Your task to perform on an android device: Do I have any events tomorrow? Image 0: 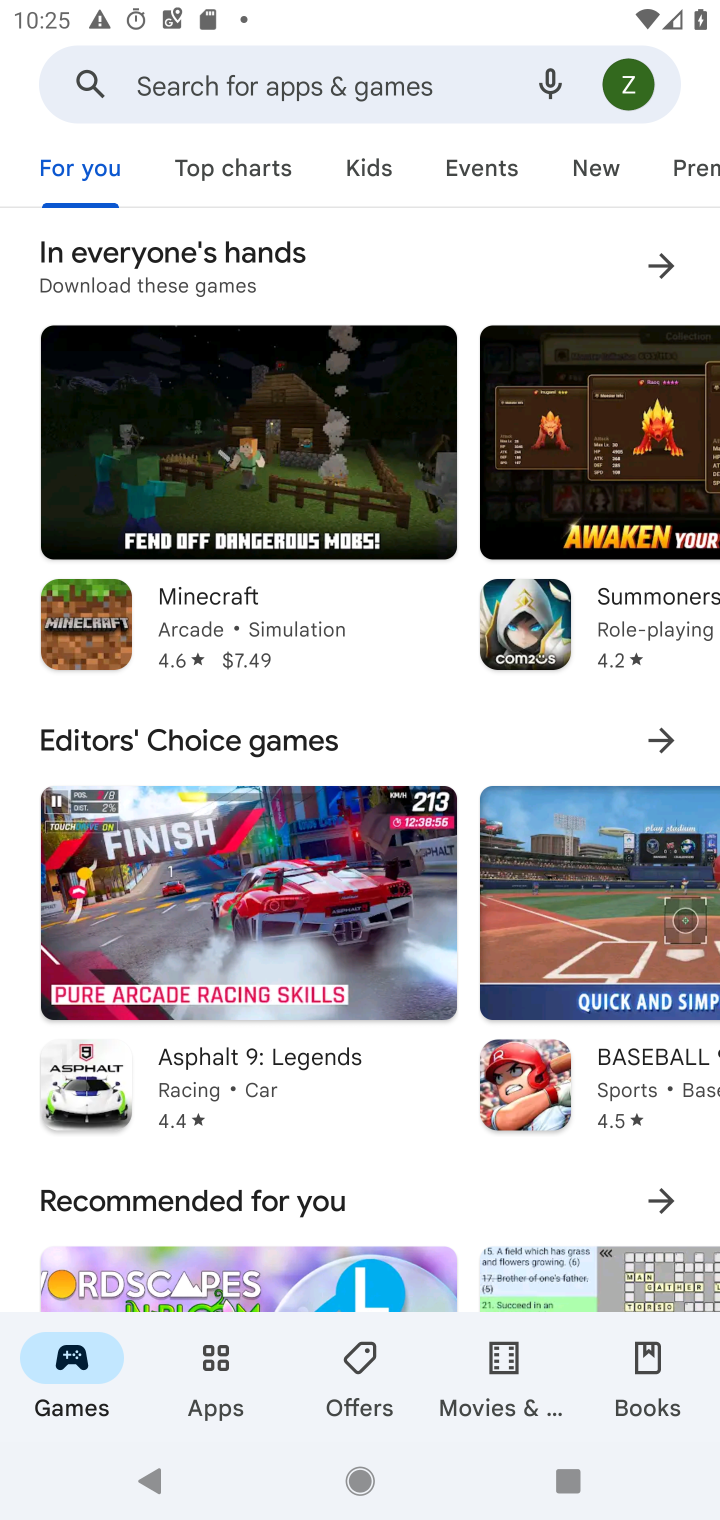
Step 0: press home button
Your task to perform on an android device: Do I have any events tomorrow? Image 1: 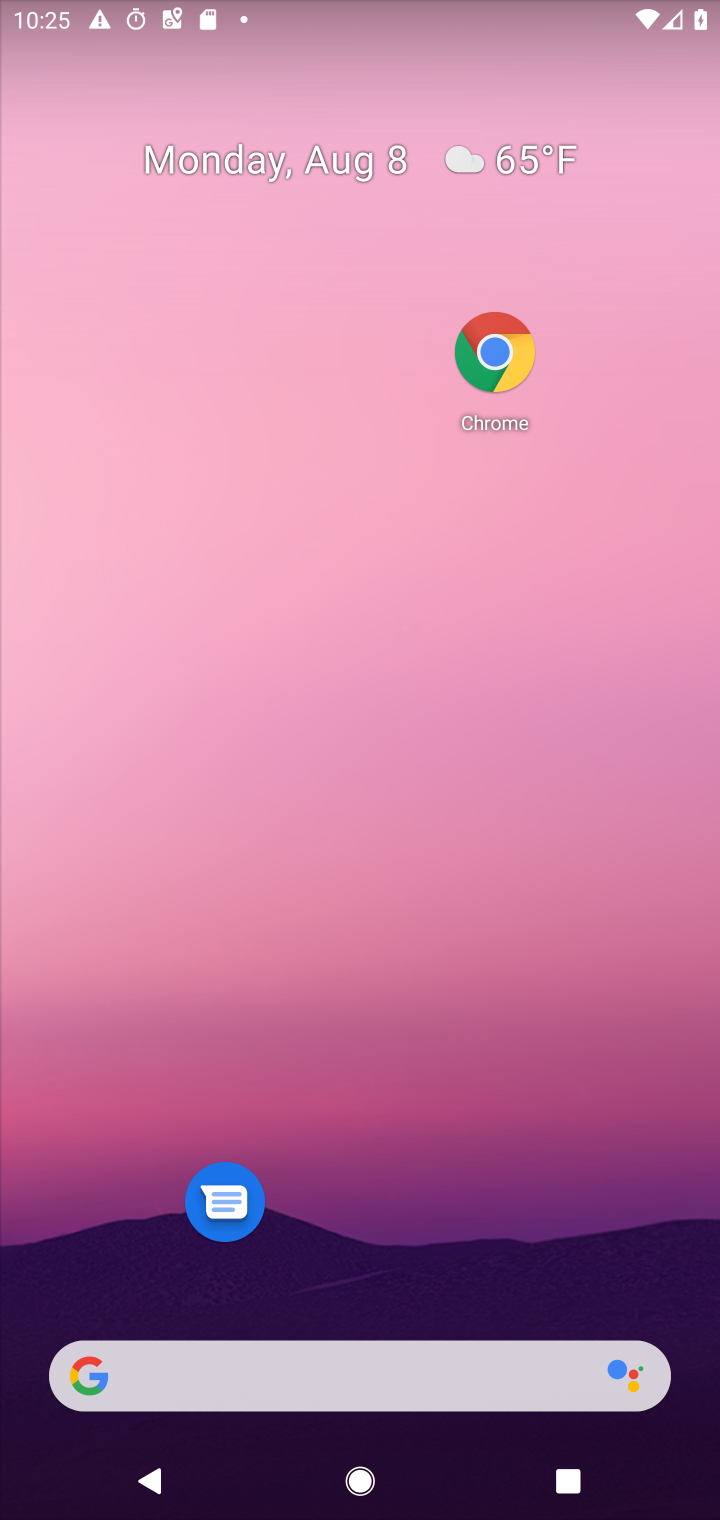
Step 1: drag from (584, 910) to (676, 289)
Your task to perform on an android device: Do I have any events tomorrow? Image 2: 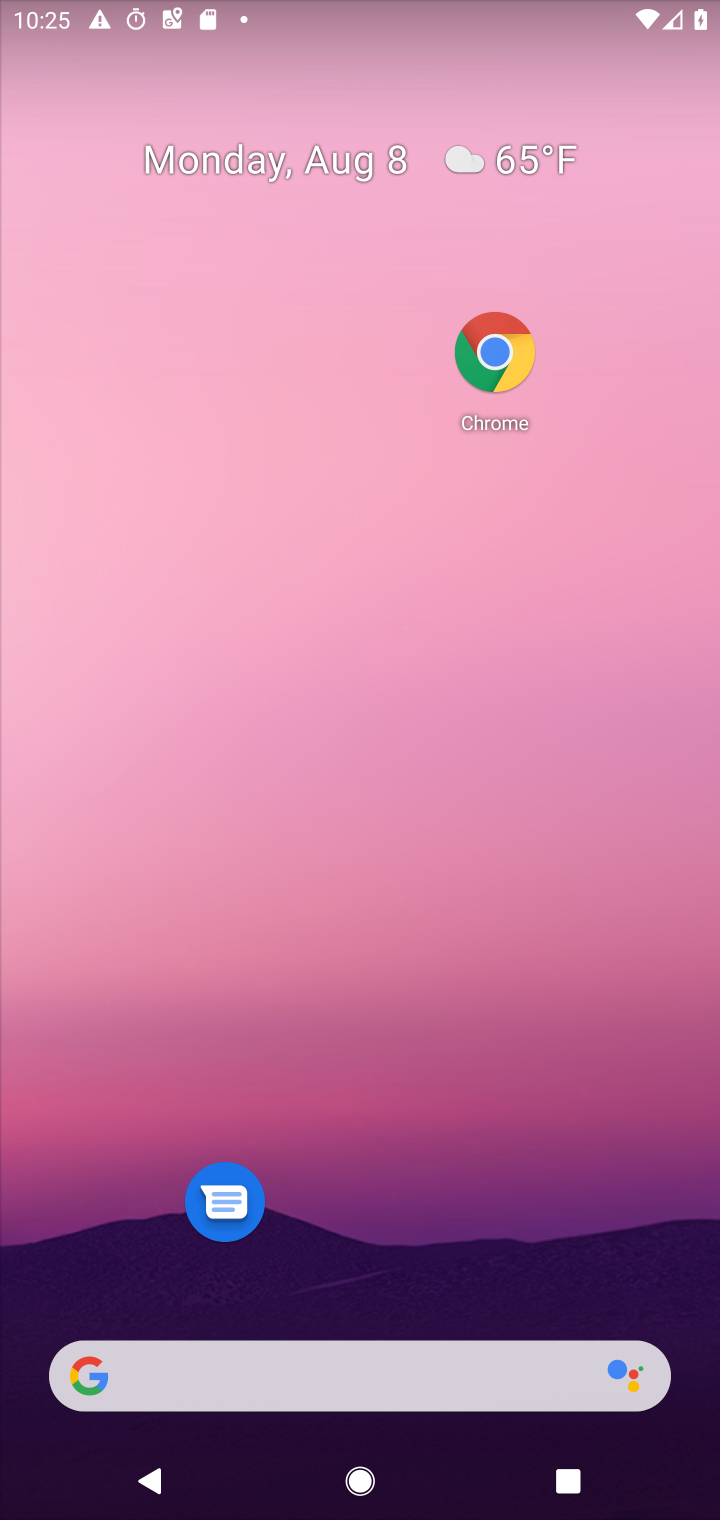
Step 2: drag from (446, 866) to (456, 217)
Your task to perform on an android device: Do I have any events tomorrow? Image 3: 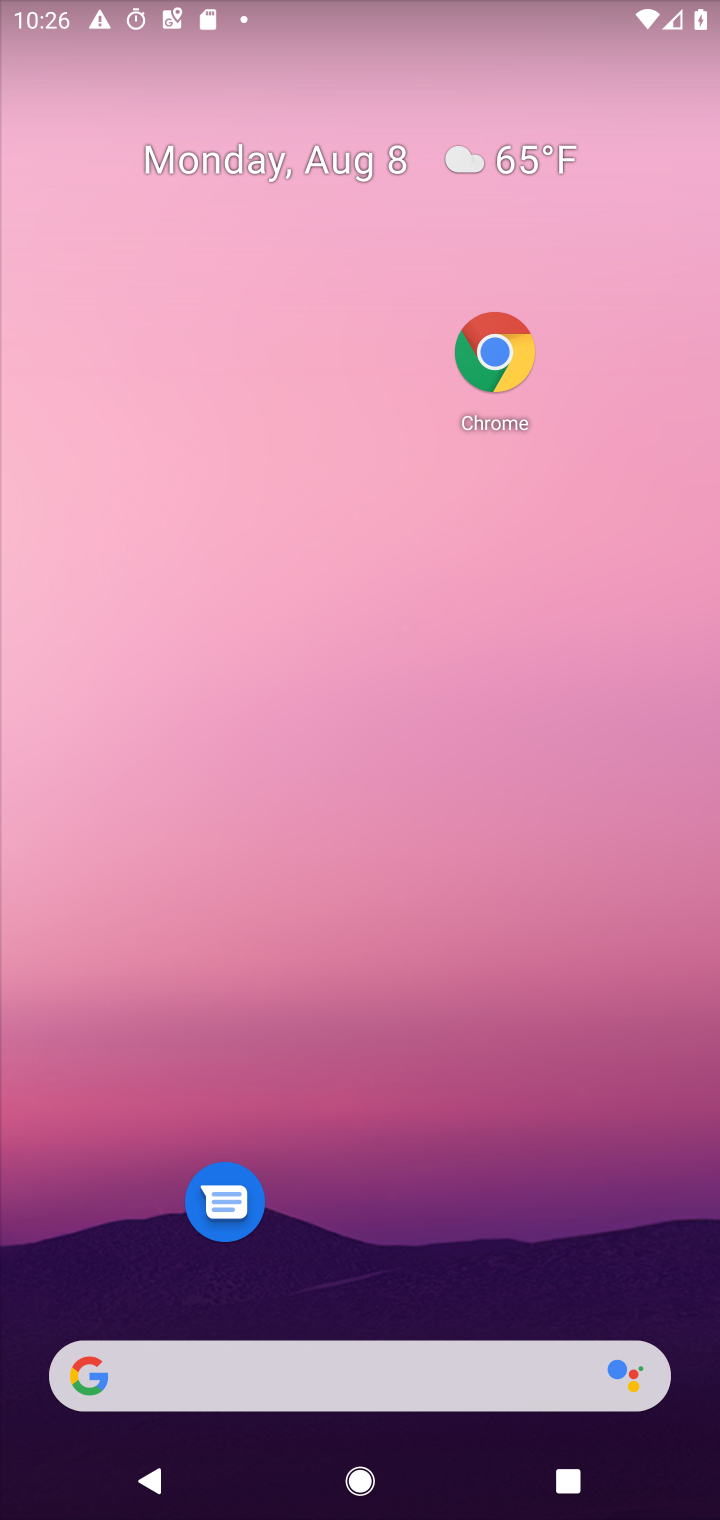
Step 3: drag from (462, 1114) to (697, 953)
Your task to perform on an android device: Do I have any events tomorrow? Image 4: 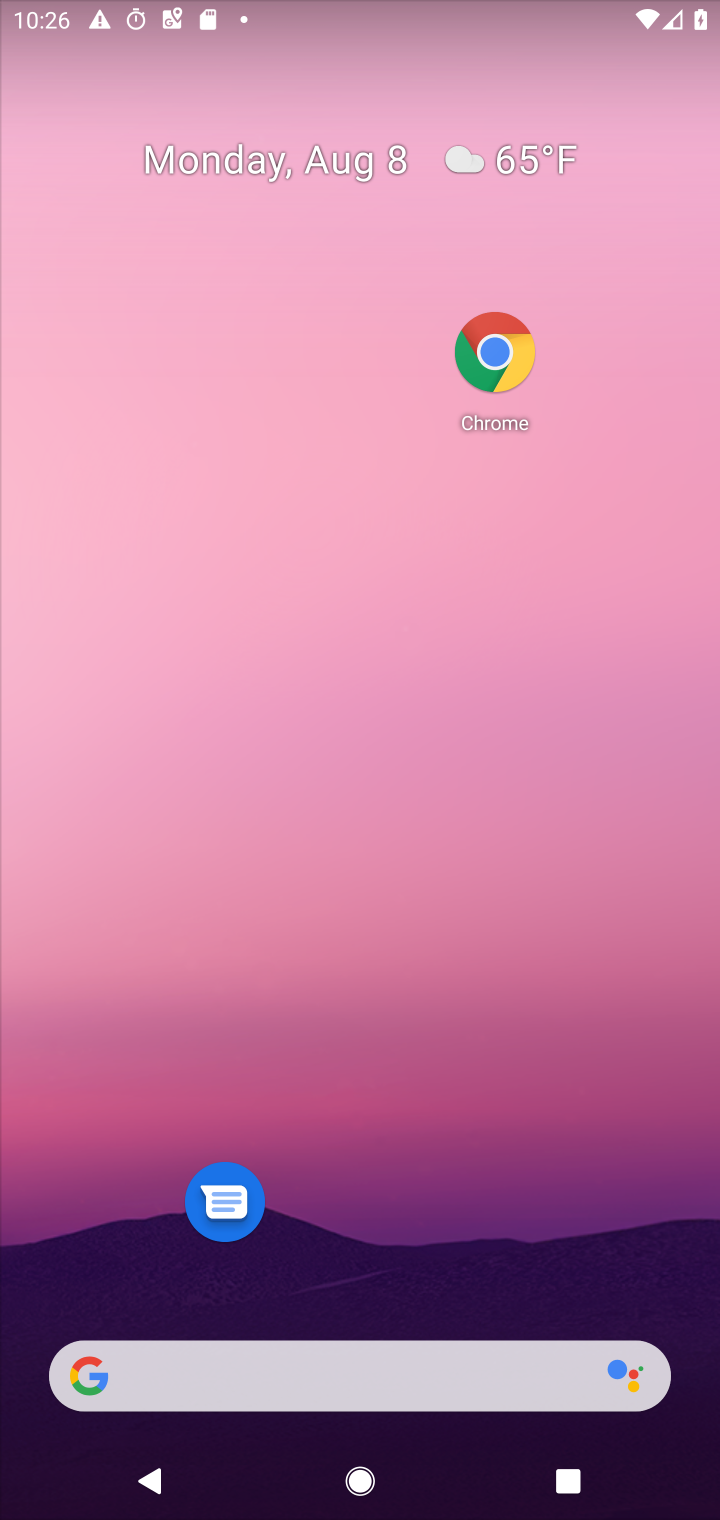
Step 4: drag from (388, 1289) to (715, 20)
Your task to perform on an android device: Do I have any events tomorrow? Image 5: 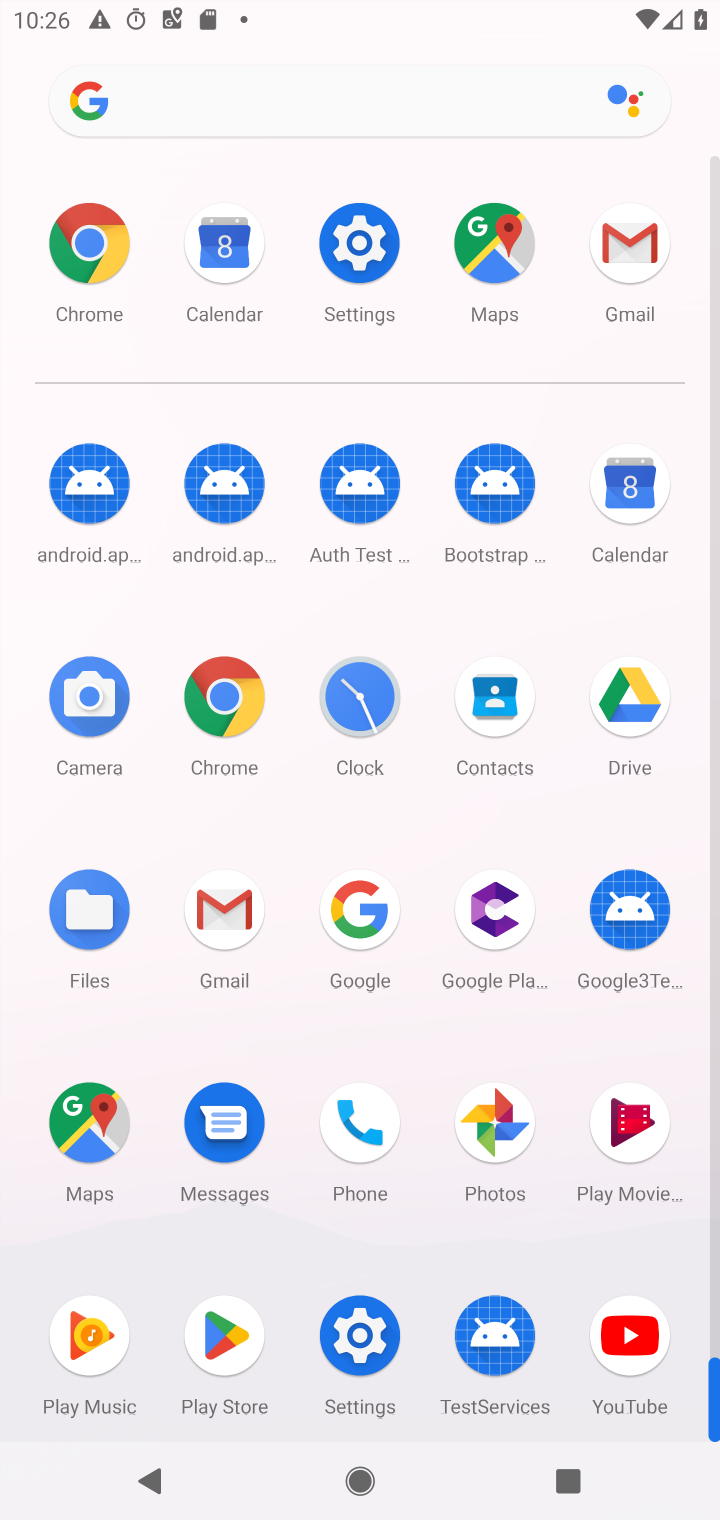
Step 5: click (616, 519)
Your task to perform on an android device: Do I have any events tomorrow? Image 6: 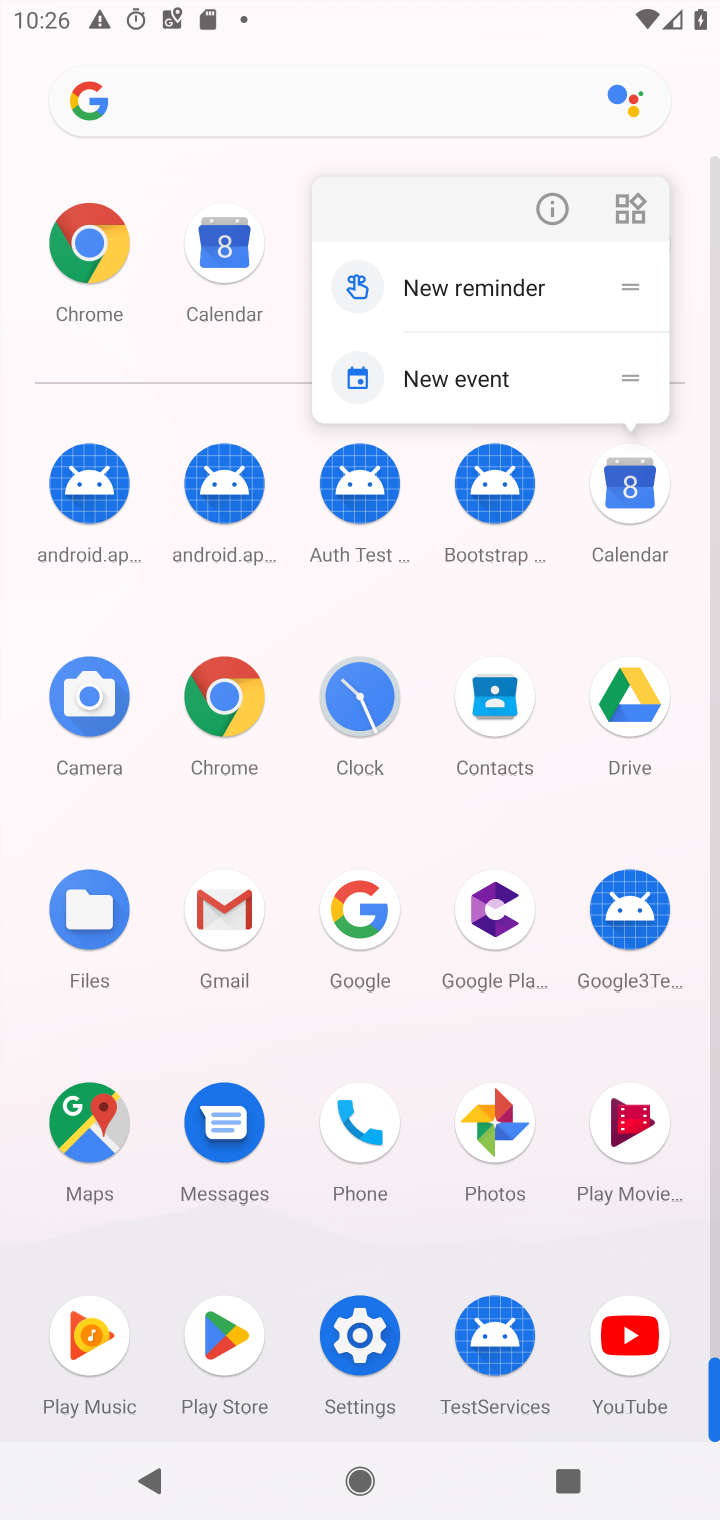
Step 6: click (613, 543)
Your task to perform on an android device: Do I have any events tomorrow? Image 7: 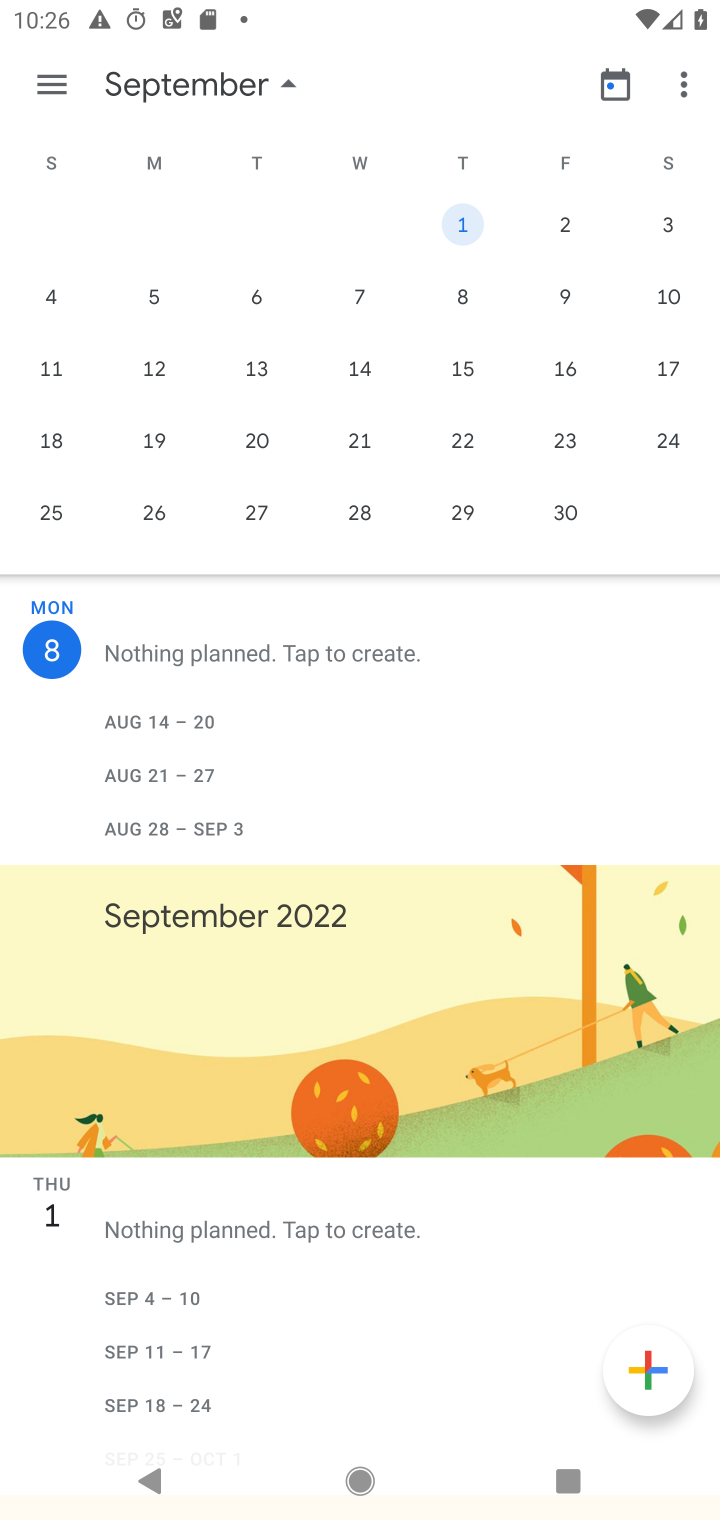
Step 7: drag from (53, 350) to (719, 472)
Your task to perform on an android device: Do I have any events tomorrow? Image 8: 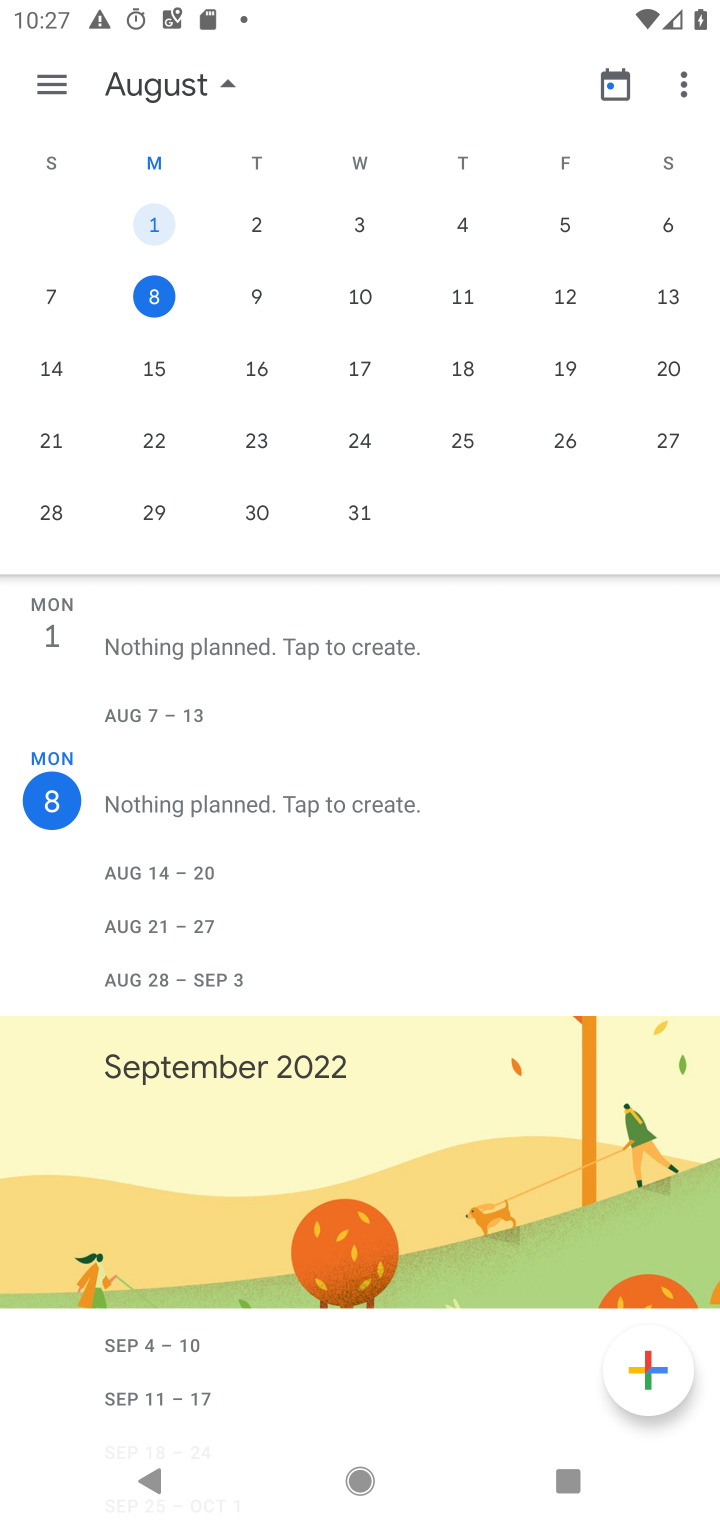
Step 8: click (265, 304)
Your task to perform on an android device: Do I have any events tomorrow? Image 9: 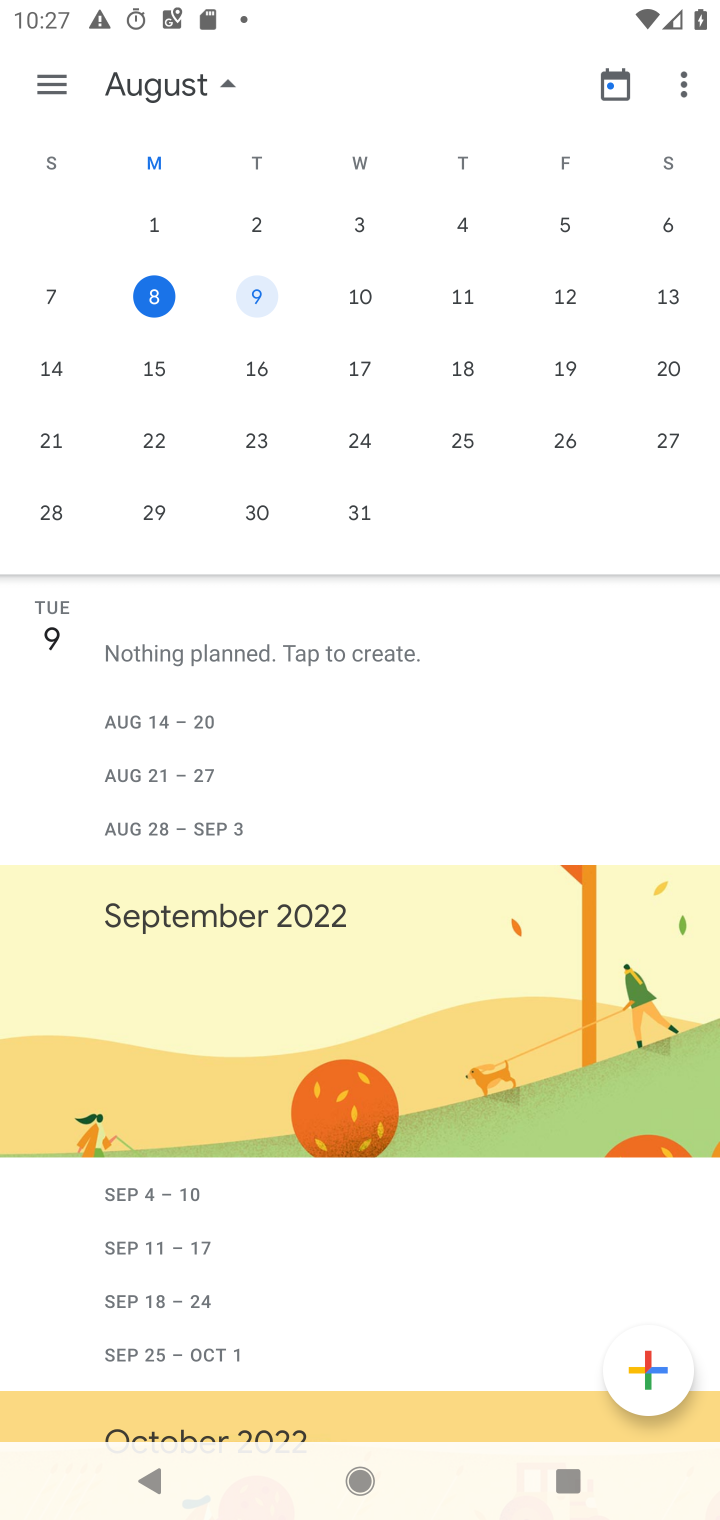
Step 9: task complete